Your task to perform on an android device: Check the news Image 0: 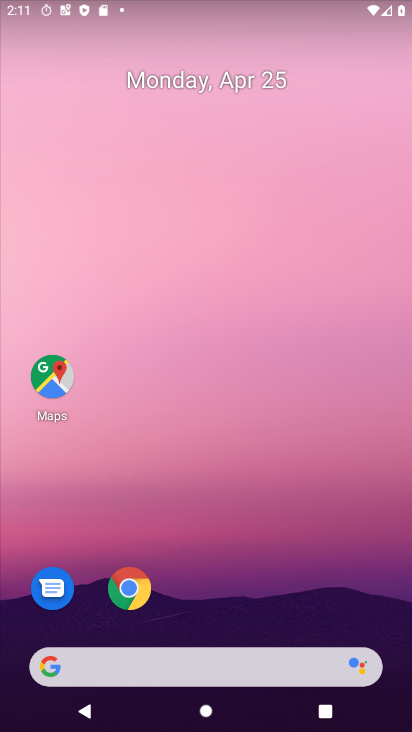
Step 0: drag from (226, 578) to (225, 150)
Your task to perform on an android device: Check the news Image 1: 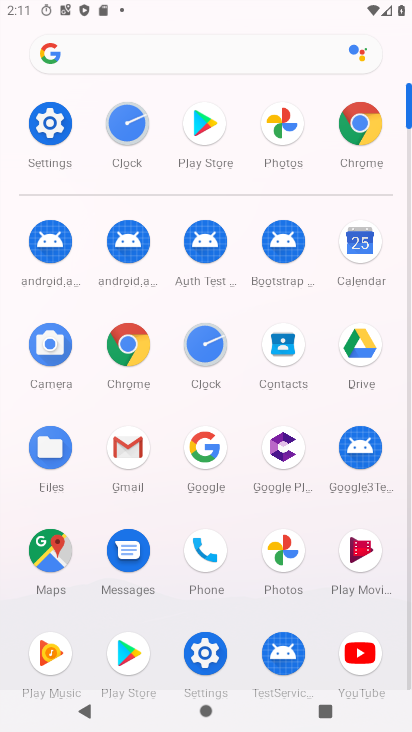
Step 1: click (216, 455)
Your task to perform on an android device: Check the news Image 2: 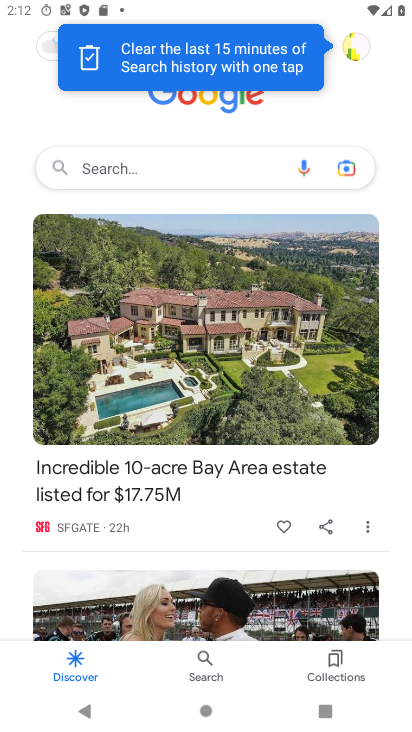
Step 2: task complete